Your task to perform on an android device: change the upload size in google photos Image 0: 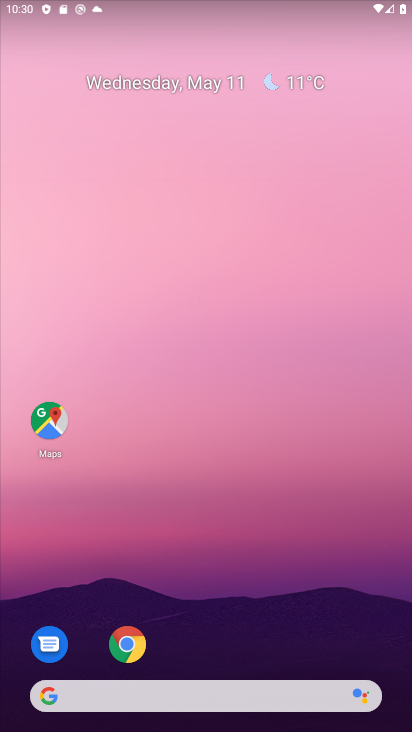
Step 0: drag from (209, 628) to (215, 60)
Your task to perform on an android device: change the upload size in google photos Image 1: 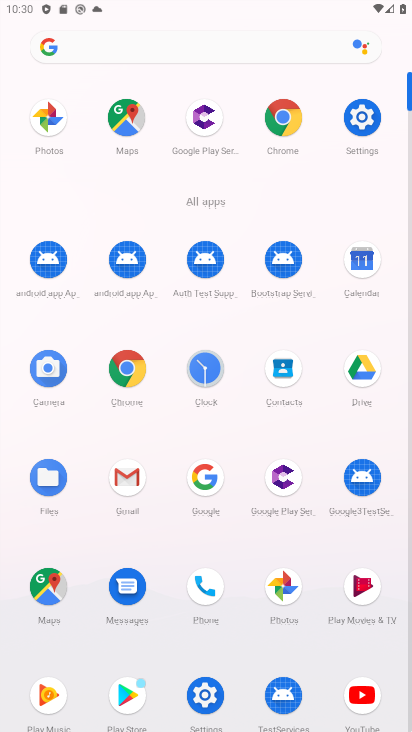
Step 1: click (284, 582)
Your task to perform on an android device: change the upload size in google photos Image 2: 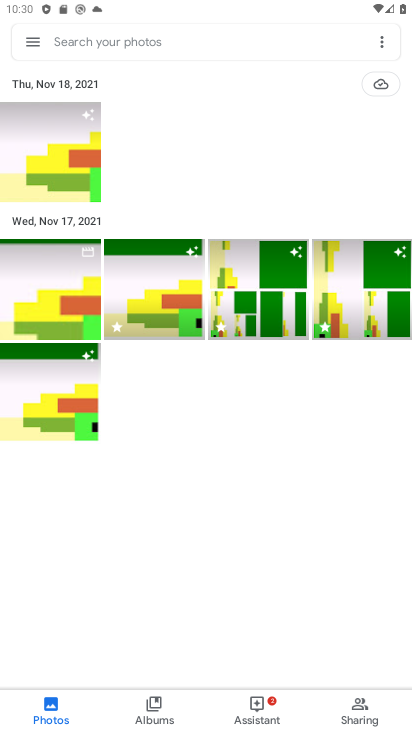
Step 2: press home button
Your task to perform on an android device: change the upload size in google photos Image 3: 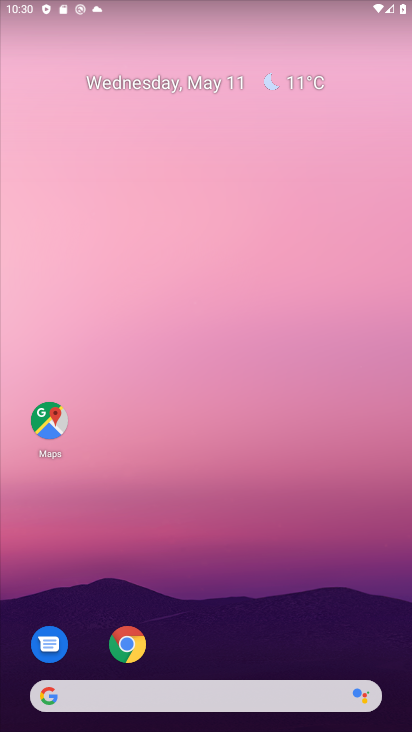
Step 3: drag from (197, 617) to (224, 97)
Your task to perform on an android device: change the upload size in google photos Image 4: 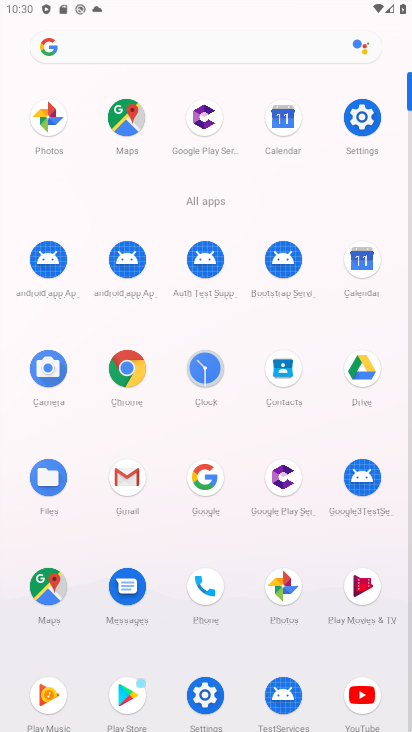
Step 4: click (283, 576)
Your task to perform on an android device: change the upload size in google photos Image 5: 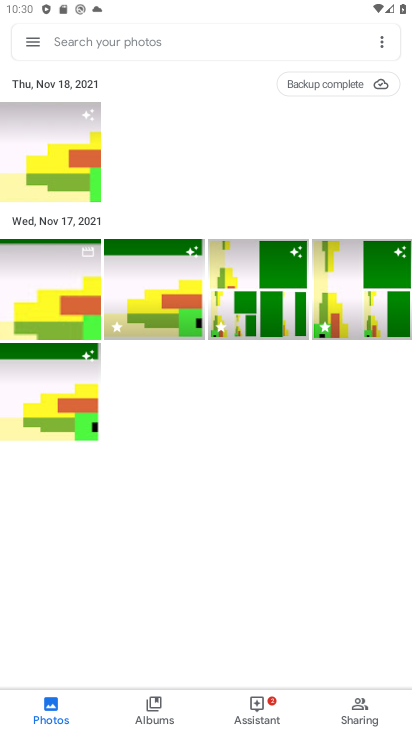
Step 5: click (28, 40)
Your task to perform on an android device: change the upload size in google photos Image 6: 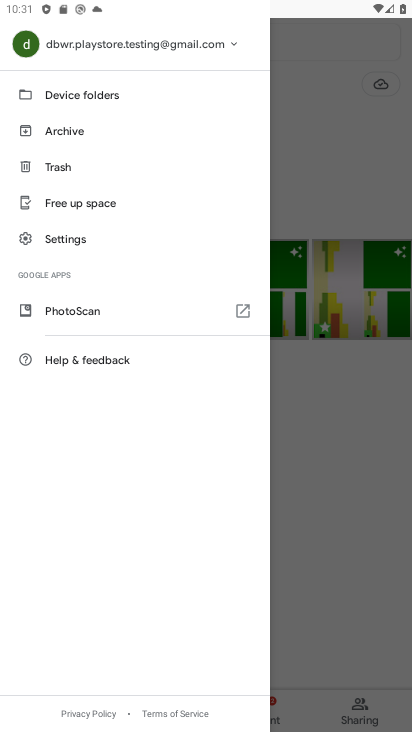
Step 6: click (82, 240)
Your task to perform on an android device: change the upload size in google photos Image 7: 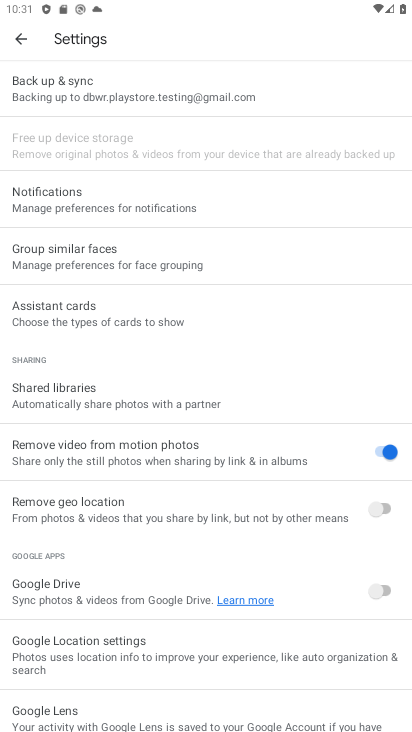
Step 7: click (82, 79)
Your task to perform on an android device: change the upload size in google photos Image 8: 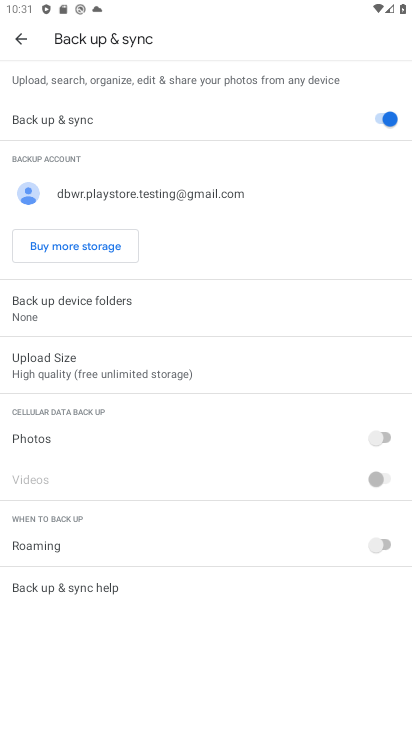
Step 8: click (85, 358)
Your task to perform on an android device: change the upload size in google photos Image 9: 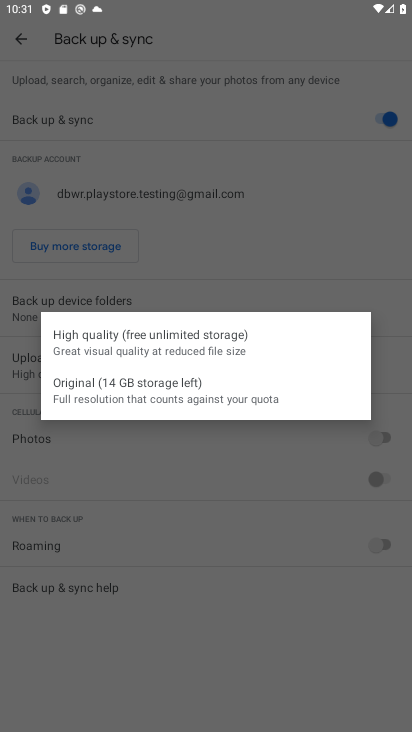
Step 9: click (155, 388)
Your task to perform on an android device: change the upload size in google photos Image 10: 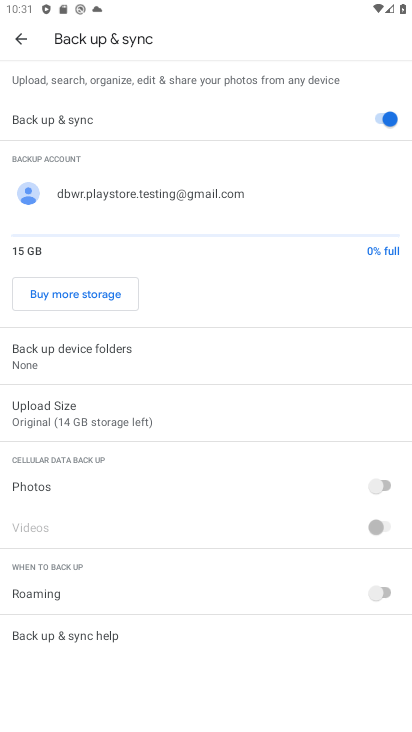
Step 10: task complete